Your task to perform on an android device: Open my contact list Image 0: 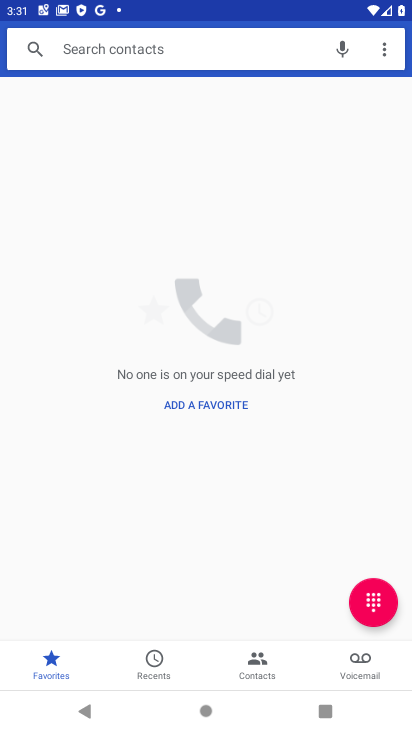
Step 0: press home button
Your task to perform on an android device: Open my contact list Image 1: 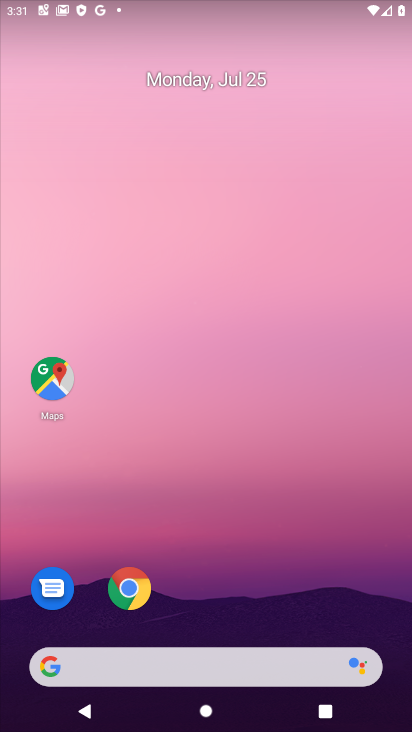
Step 1: drag from (380, 708) to (299, 49)
Your task to perform on an android device: Open my contact list Image 2: 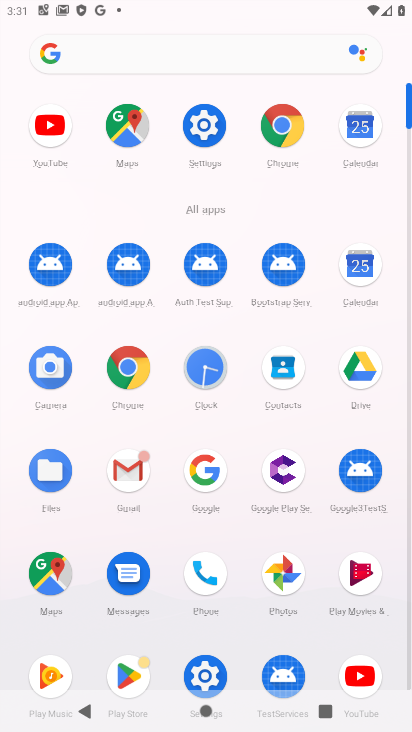
Step 2: click (284, 371)
Your task to perform on an android device: Open my contact list Image 3: 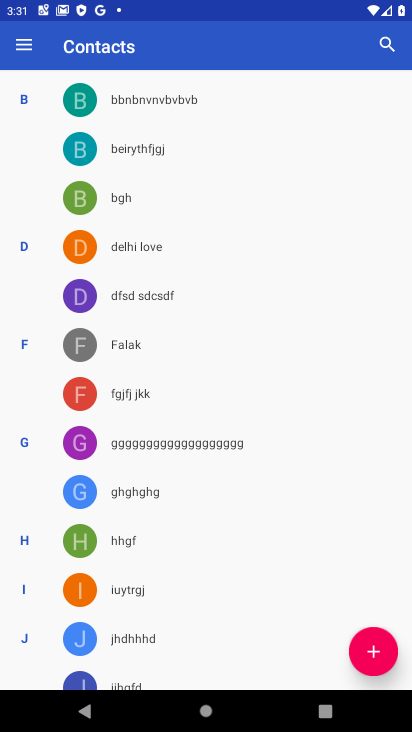
Step 3: task complete